Your task to perform on an android device: Open Yahoo.com Image 0: 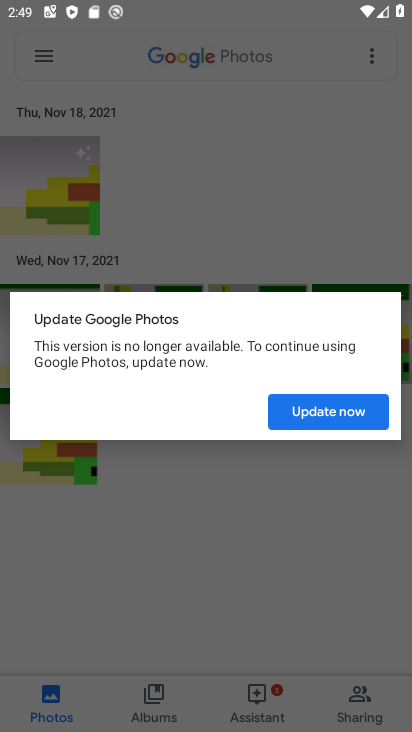
Step 0: press home button
Your task to perform on an android device: Open Yahoo.com Image 1: 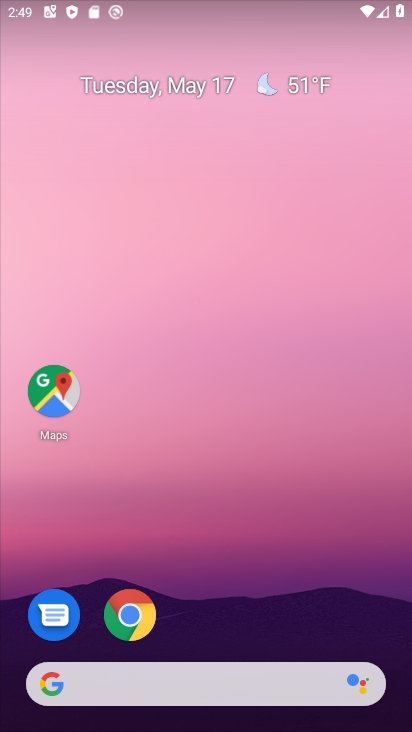
Step 1: click (124, 607)
Your task to perform on an android device: Open Yahoo.com Image 2: 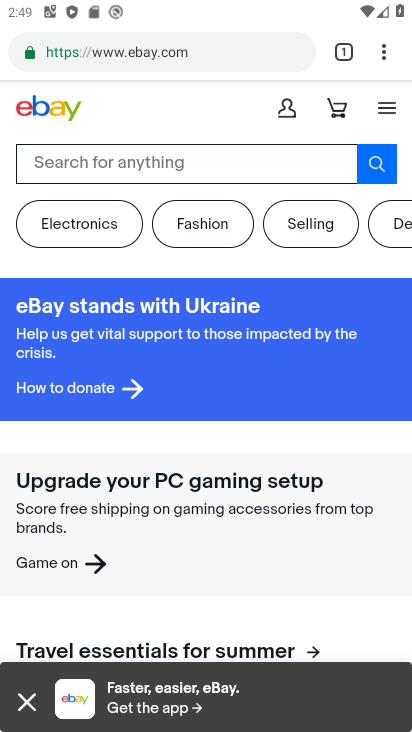
Step 2: click (344, 48)
Your task to perform on an android device: Open Yahoo.com Image 3: 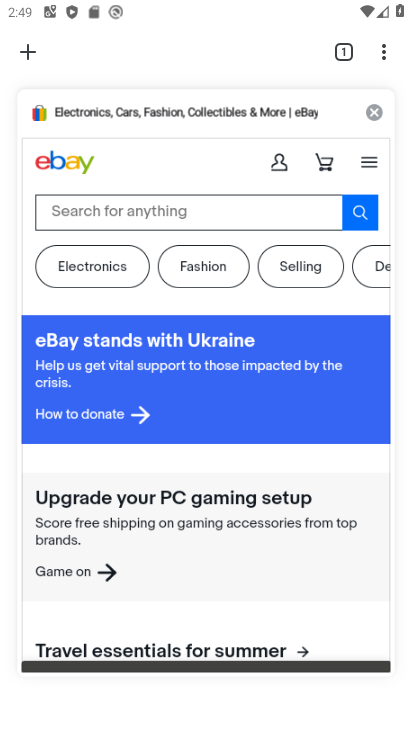
Step 3: click (376, 109)
Your task to perform on an android device: Open Yahoo.com Image 4: 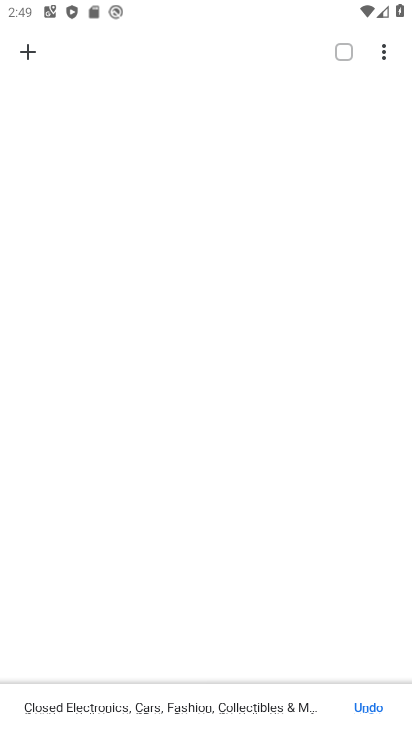
Step 4: click (29, 49)
Your task to perform on an android device: Open Yahoo.com Image 5: 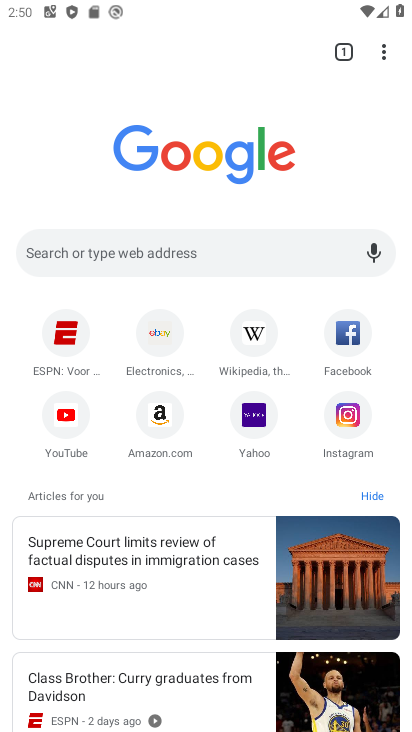
Step 5: click (253, 414)
Your task to perform on an android device: Open Yahoo.com Image 6: 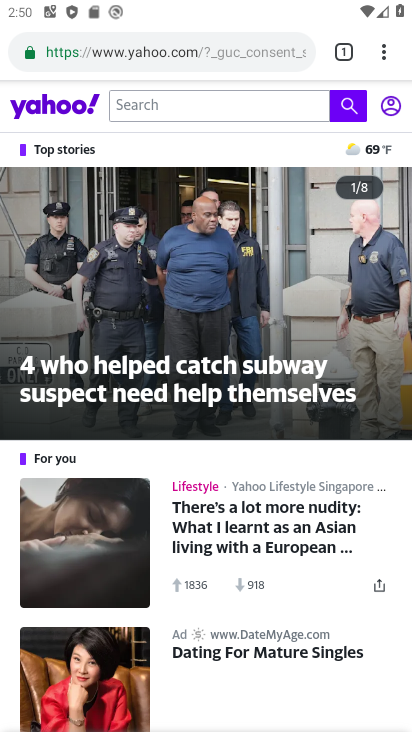
Step 6: task complete